Your task to perform on an android device: turn off location Image 0: 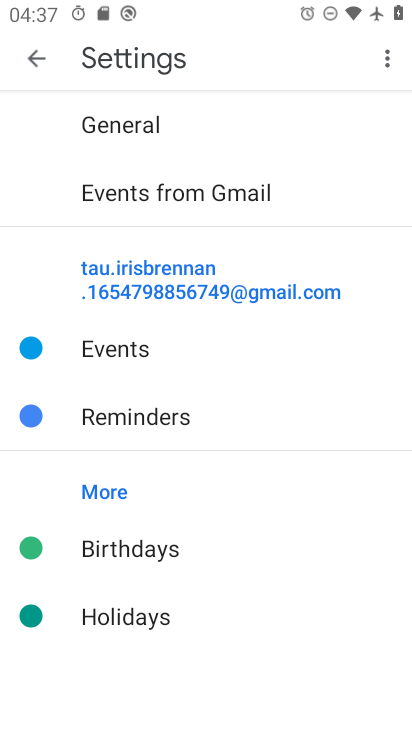
Step 0: press home button
Your task to perform on an android device: turn off location Image 1: 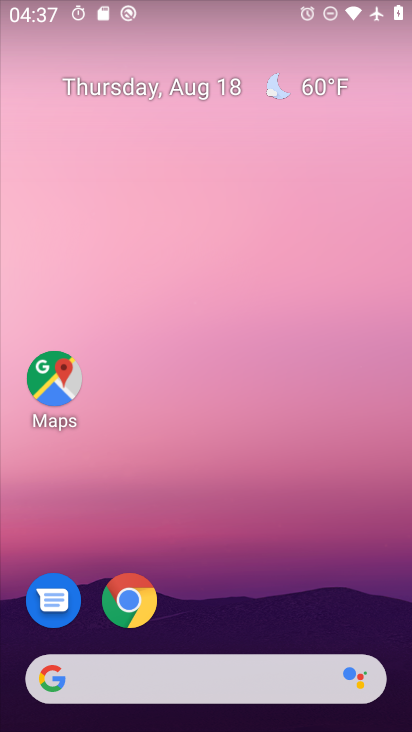
Step 1: drag from (238, 634) to (220, 96)
Your task to perform on an android device: turn off location Image 2: 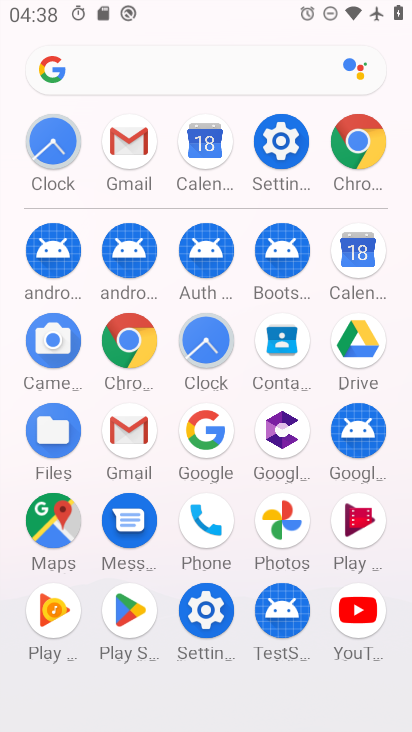
Step 2: click (276, 155)
Your task to perform on an android device: turn off location Image 3: 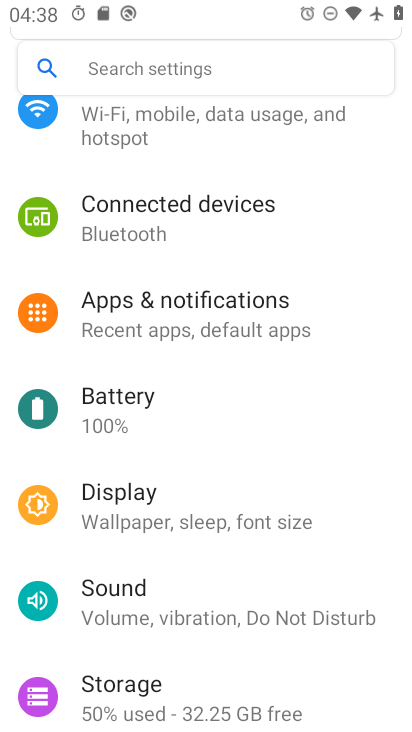
Step 3: drag from (203, 653) to (199, 177)
Your task to perform on an android device: turn off location Image 4: 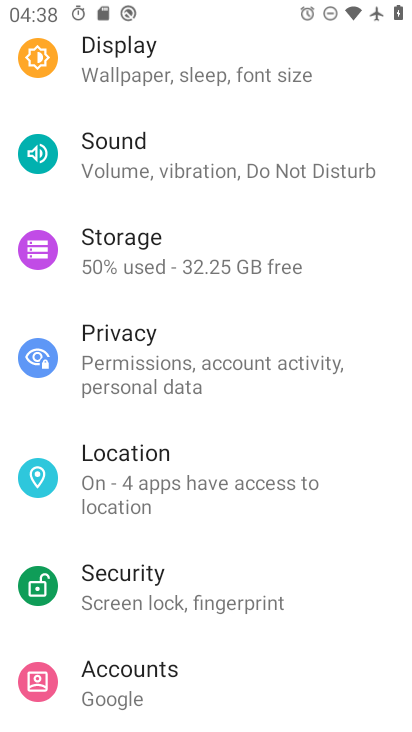
Step 4: click (158, 483)
Your task to perform on an android device: turn off location Image 5: 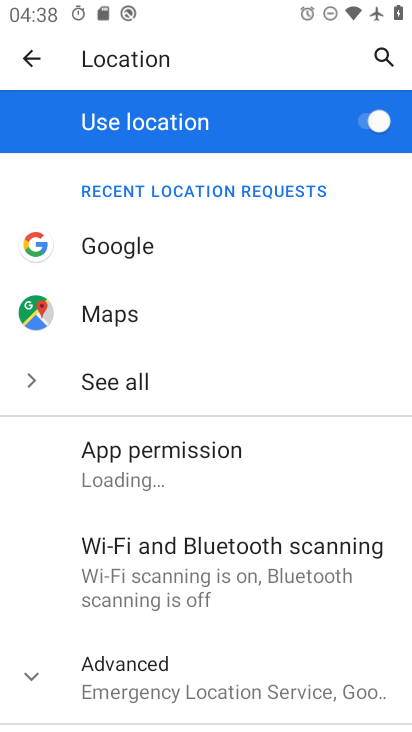
Step 5: click (381, 120)
Your task to perform on an android device: turn off location Image 6: 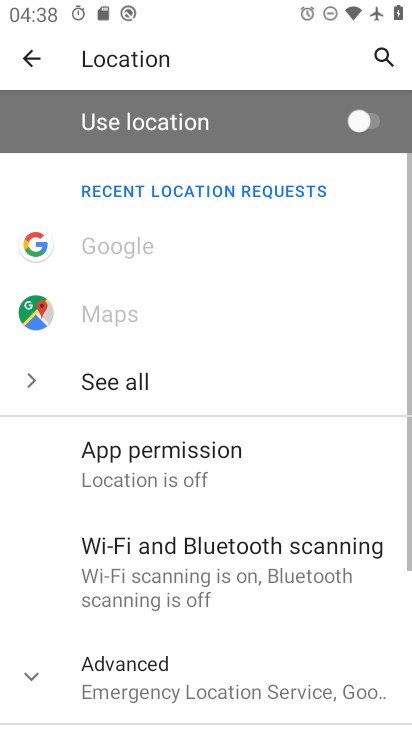
Step 6: task complete